Your task to perform on an android device: What's the weather going to be this weekend? Image 0: 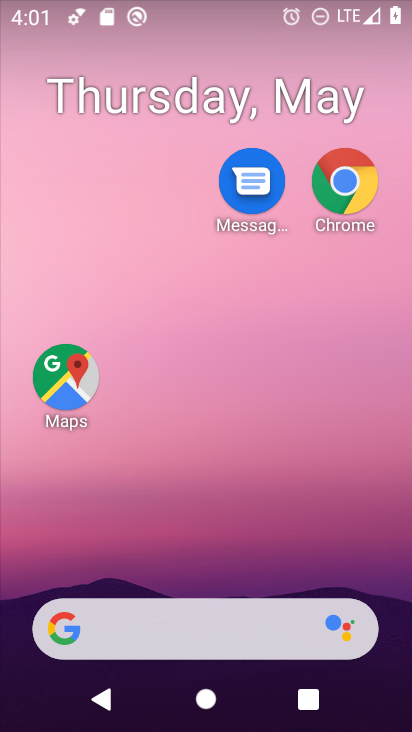
Step 0: drag from (231, 581) to (241, 729)
Your task to perform on an android device: What's the weather going to be this weekend? Image 1: 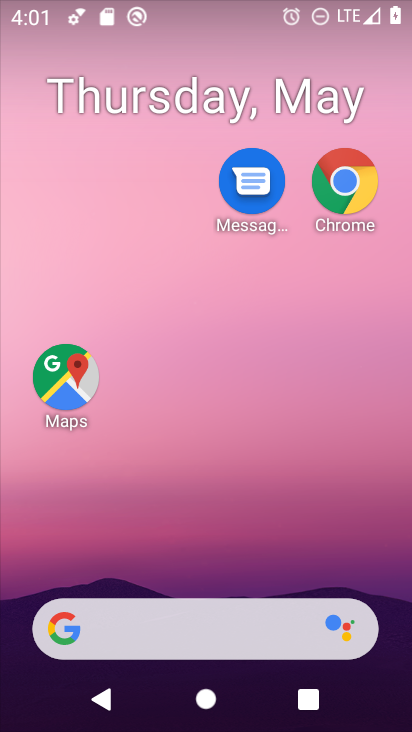
Step 1: drag from (85, 286) to (410, 295)
Your task to perform on an android device: What's the weather going to be this weekend? Image 2: 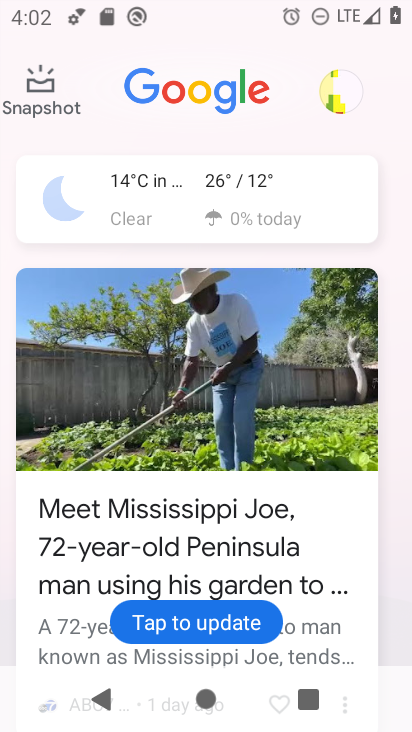
Step 2: drag from (155, 392) to (254, 400)
Your task to perform on an android device: What's the weather going to be this weekend? Image 3: 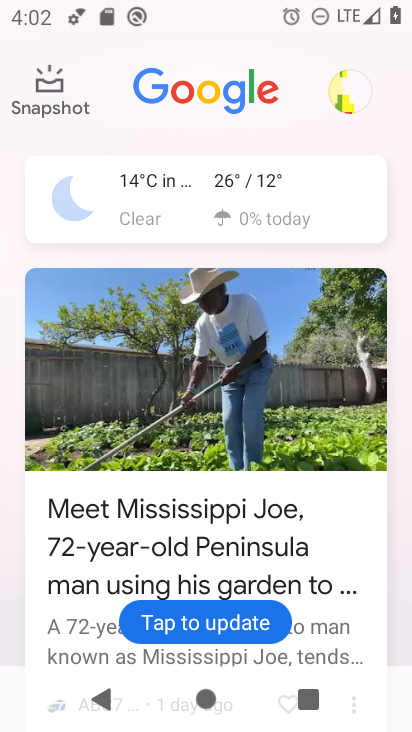
Step 3: click (296, 215)
Your task to perform on an android device: What's the weather going to be this weekend? Image 4: 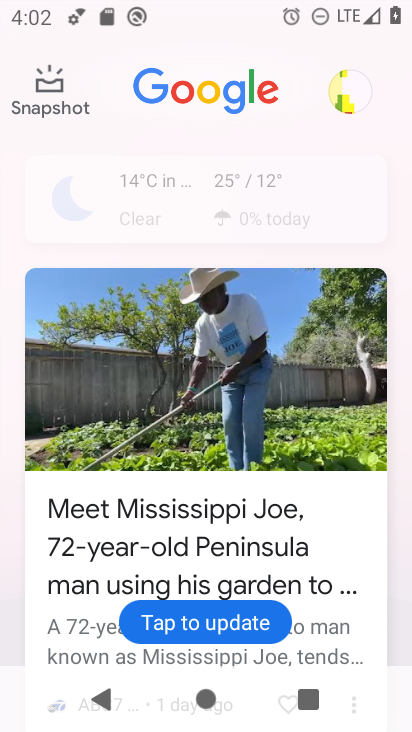
Step 4: click (250, 200)
Your task to perform on an android device: What's the weather going to be this weekend? Image 5: 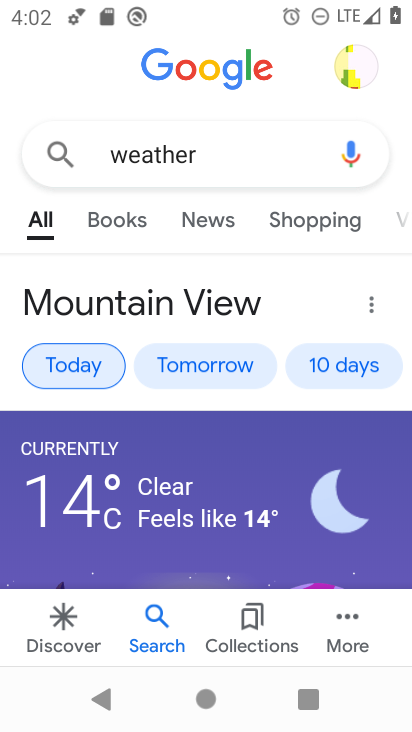
Step 5: click (335, 353)
Your task to perform on an android device: What's the weather going to be this weekend? Image 6: 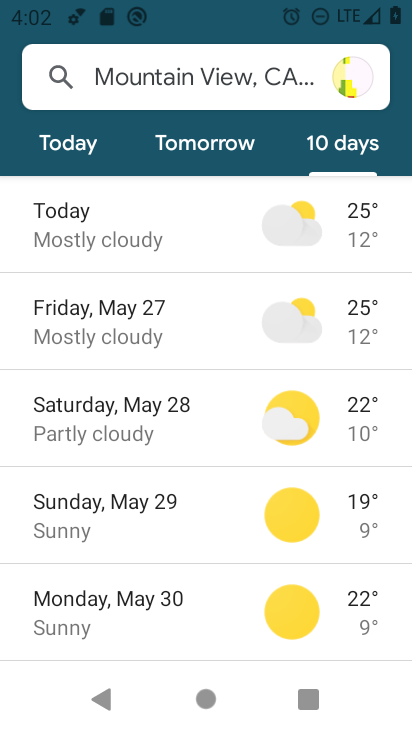
Step 6: task complete